Your task to perform on an android device: change text size in settings app Image 0: 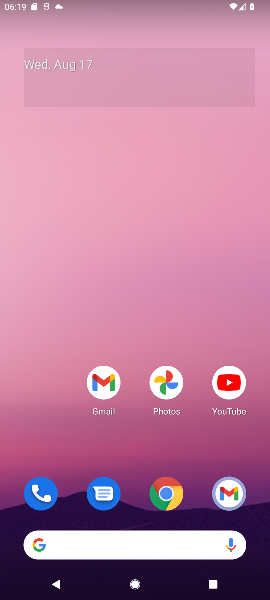
Step 0: press home button
Your task to perform on an android device: change text size in settings app Image 1: 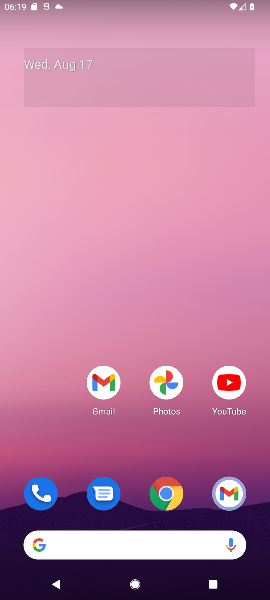
Step 1: drag from (136, 515) to (135, 141)
Your task to perform on an android device: change text size in settings app Image 2: 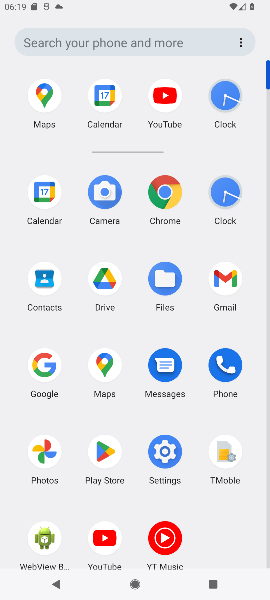
Step 2: click (153, 461)
Your task to perform on an android device: change text size in settings app Image 3: 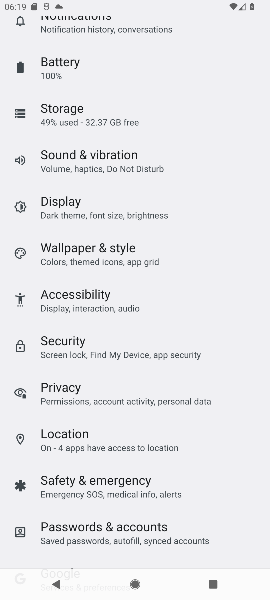
Step 3: click (73, 214)
Your task to perform on an android device: change text size in settings app Image 4: 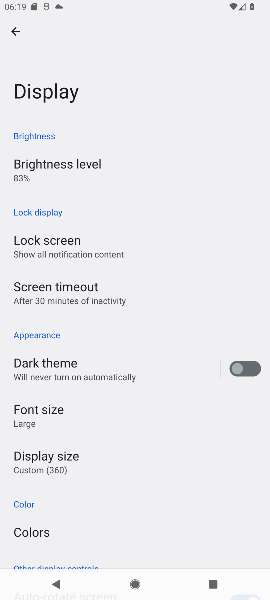
Step 4: click (32, 424)
Your task to perform on an android device: change text size in settings app Image 5: 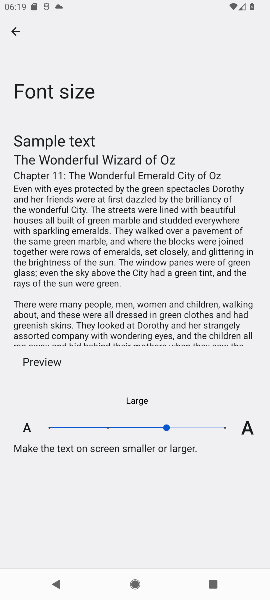
Step 5: click (123, 428)
Your task to perform on an android device: change text size in settings app Image 6: 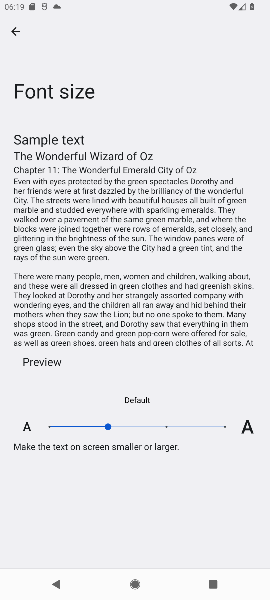
Step 6: click (219, 428)
Your task to perform on an android device: change text size in settings app Image 7: 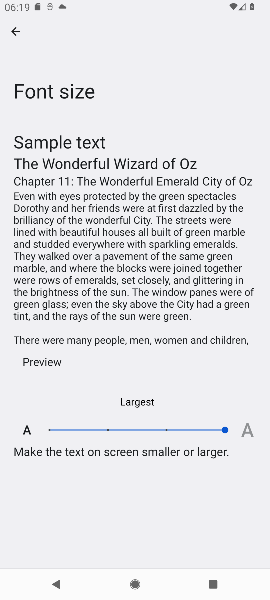
Step 7: task complete